Your task to perform on an android device: Open Youtube and go to the subscriptions tab Image 0: 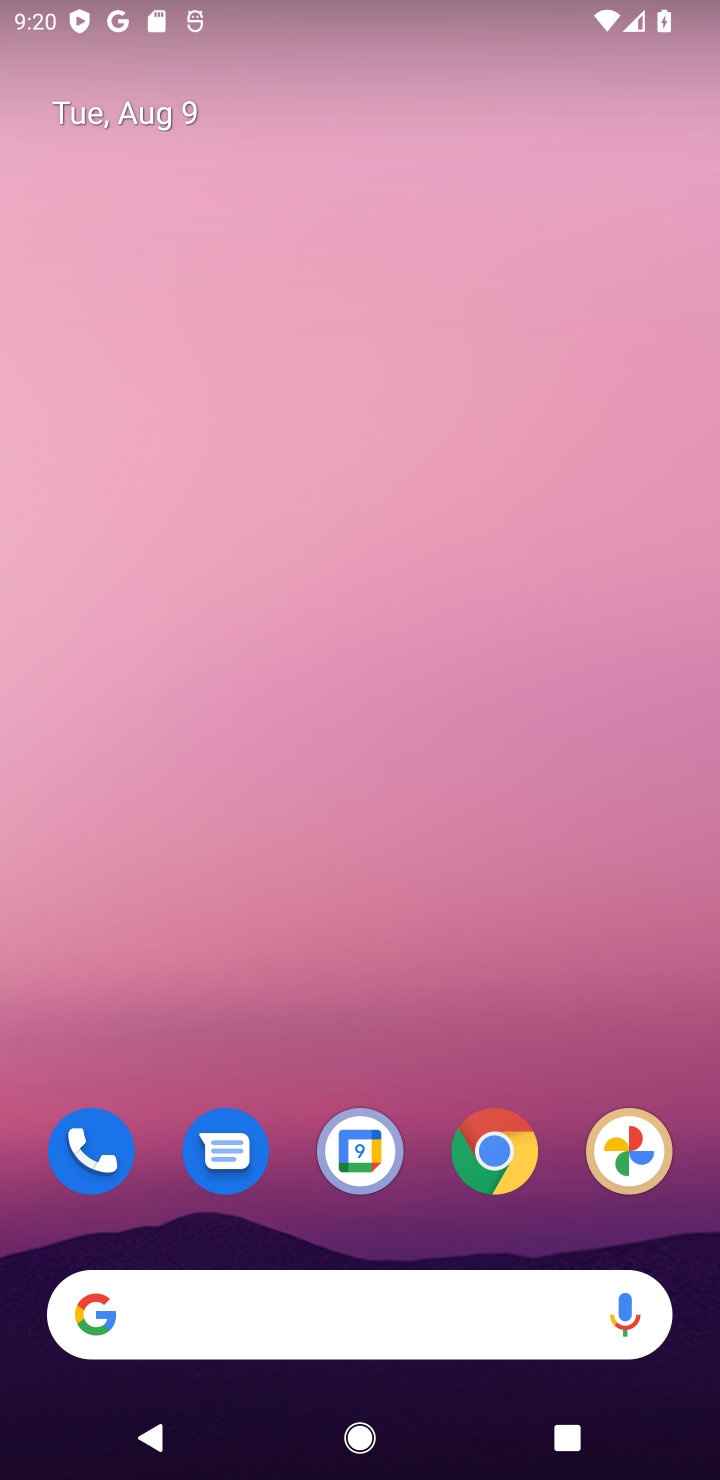
Step 0: drag from (577, 1218) to (512, 78)
Your task to perform on an android device: Open Youtube and go to the subscriptions tab Image 1: 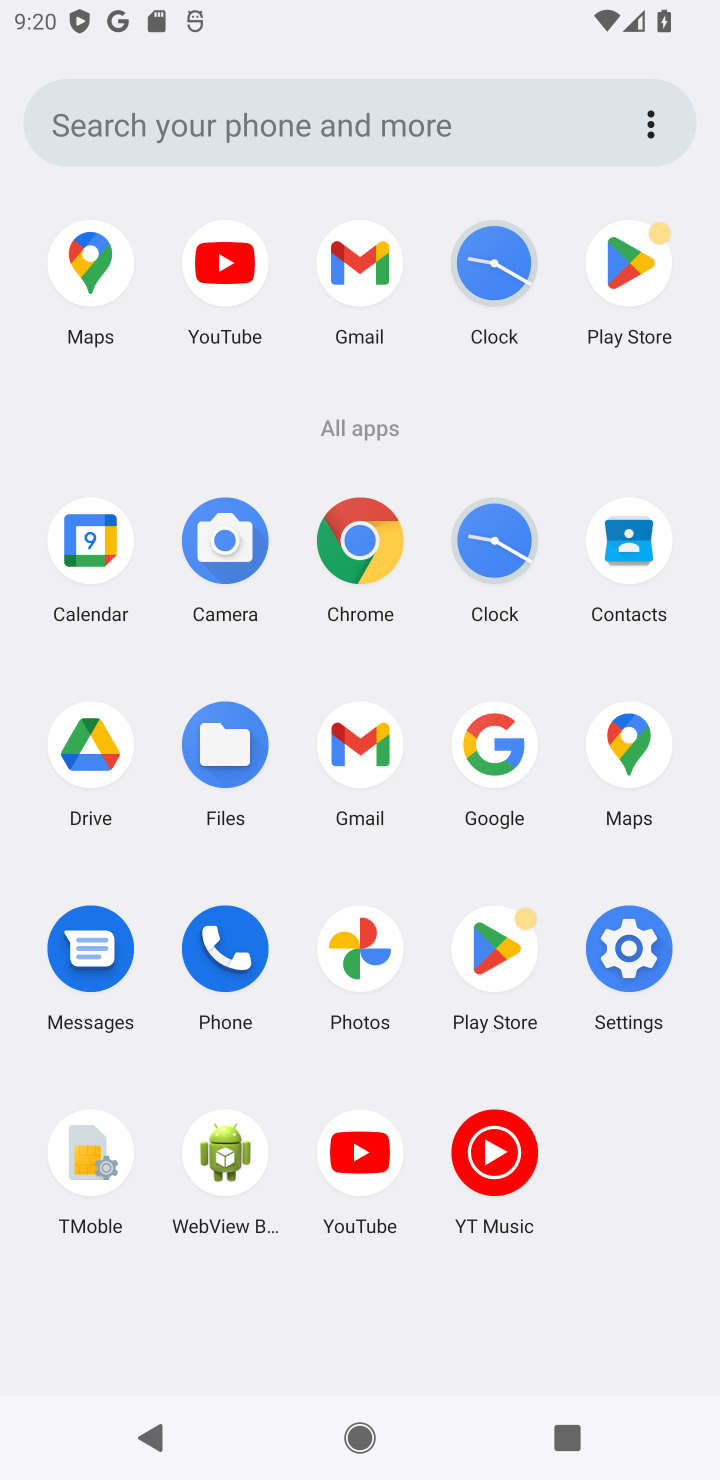
Step 1: click (363, 1158)
Your task to perform on an android device: Open Youtube and go to the subscriptions tab Image 2: 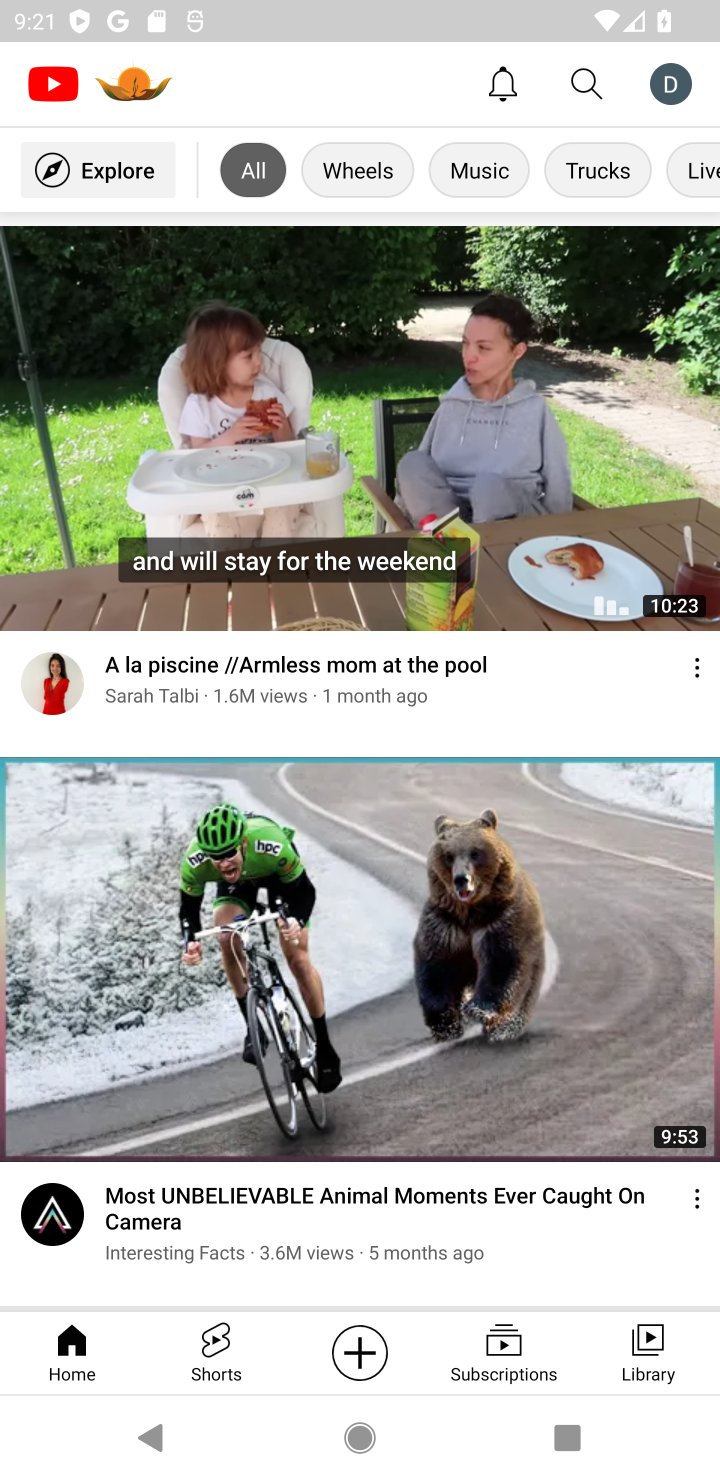
Step 2: click (491, 1335)
Your task to perform on an android device: Open Youtube and go to the subscriptions tab Image 3: 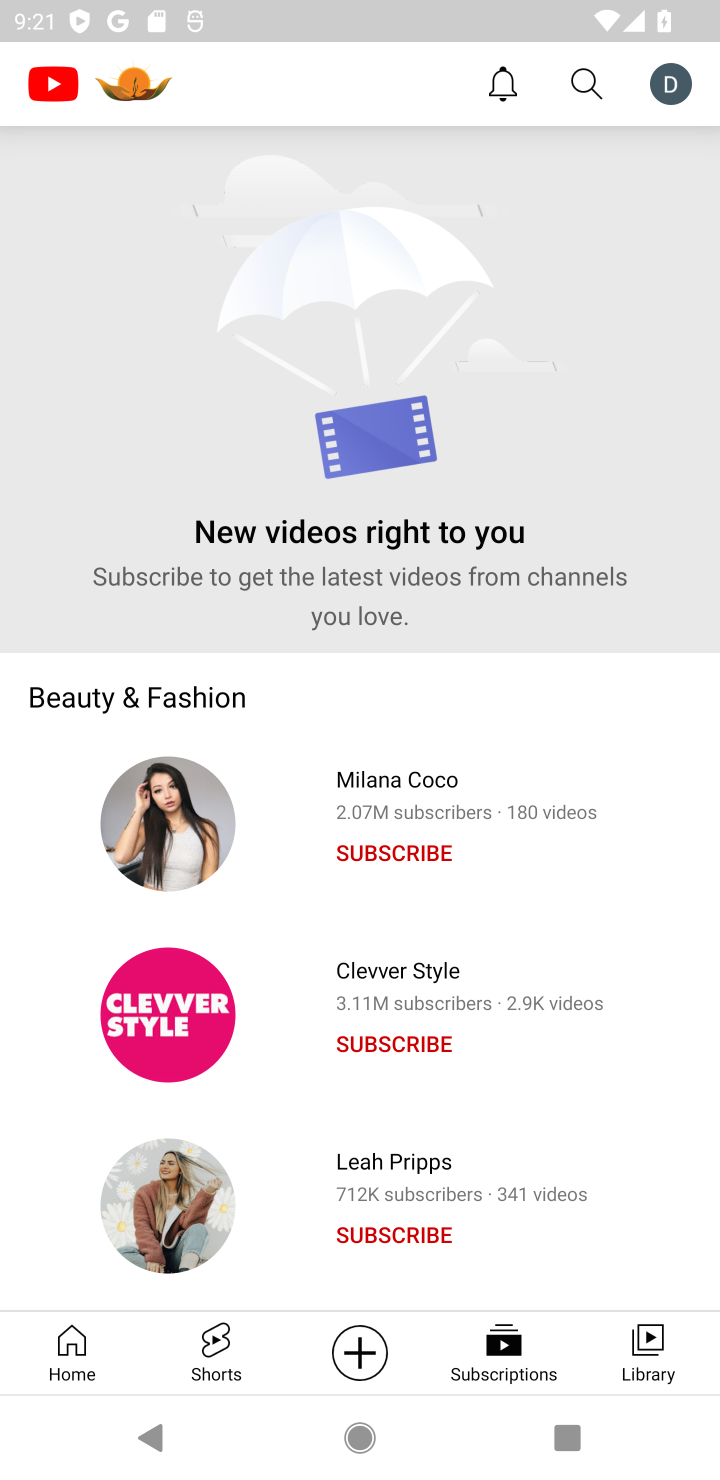
Step 3: task complete